Your task to perform on an android device: manage bookmarks in the chrome app Image 0: 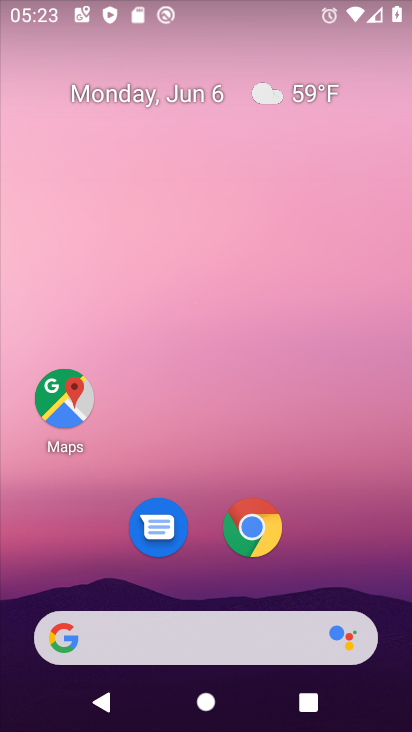
Step 0: click (242, 525)
Your task to perform on an android device: manage bookmarks in the chrome app Image 1: 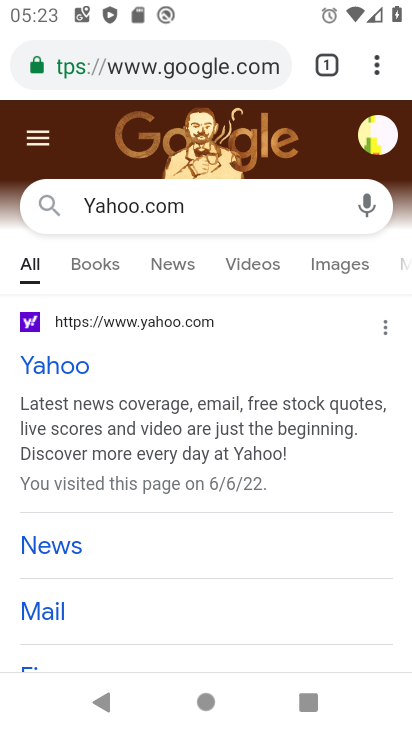
Step 1: click (379, 52)
Your task to perform on an android device: manage bookmarks in the chrome app Image 2: 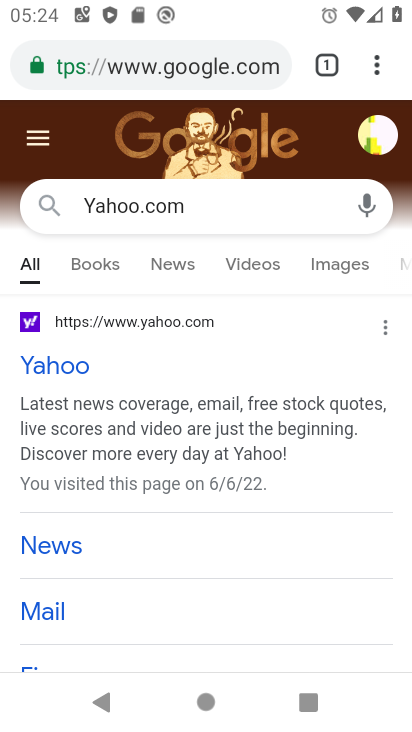
Step 2: click (372, 61)
Your task to perform on an android device: manage bookmarks in the chrome app Image 3: 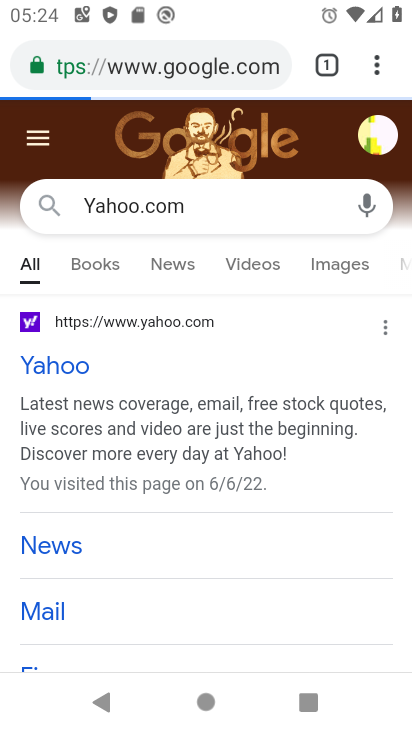
Step 3: click (372, 61)
Your task to perform on an android device: manage bookmarks in the chrome app Image 4: 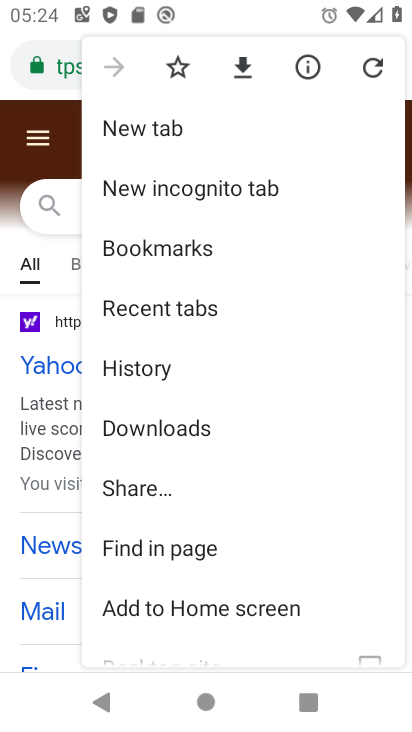
Step 4: click (163, 242)
Your task to perform on an android device: manage bookmarks in the chrome app Image 5: 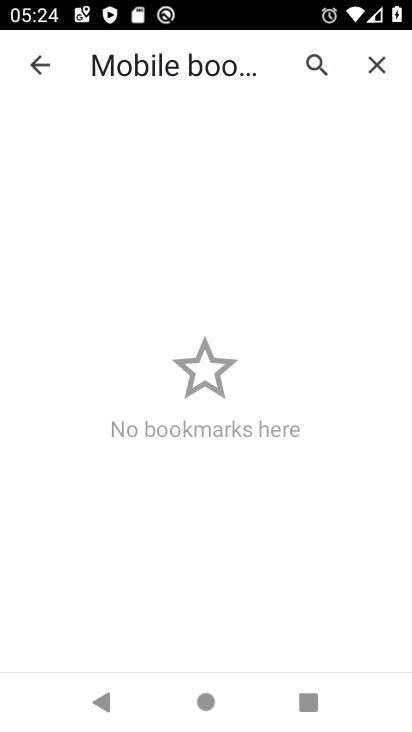
Step 5: task complete